Your task to perform on an android device: manage bookmarks in the chrome app Image 0: 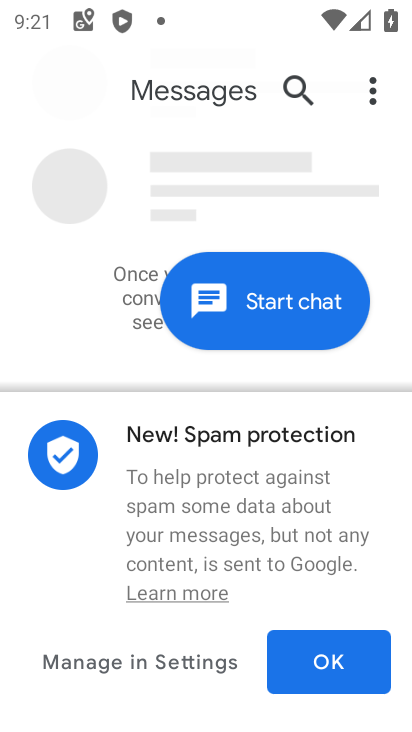
Step 0: press home button
Your task to perform on an android device: manage bookmarks in the chrome app Image 1: 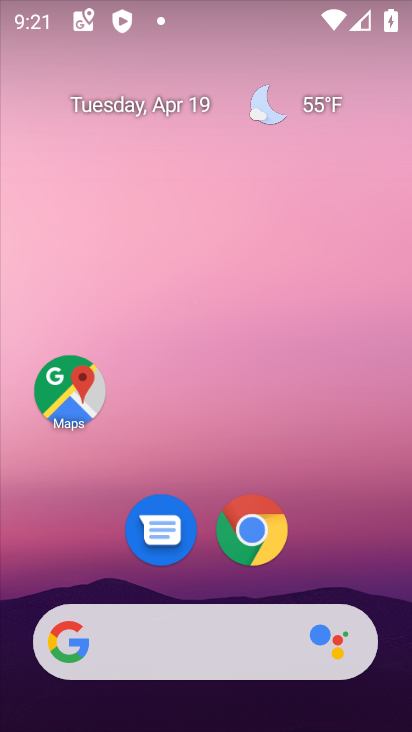
Step 1: click (253, 526)
Your task to perform on an android device: manage bookmarks in the chrome app Image 2: 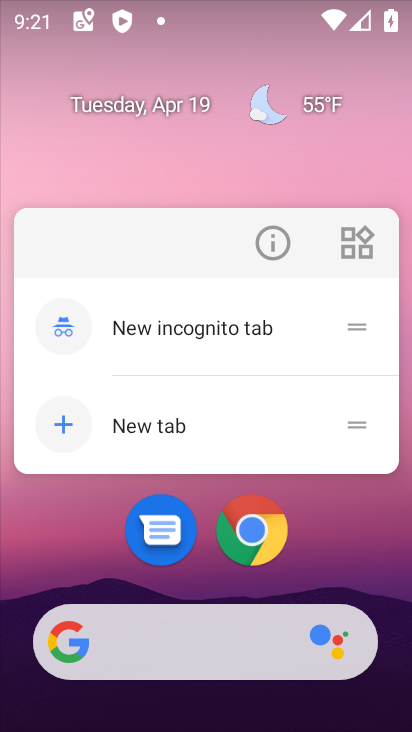
Step 2: click (253, 526)
Your task to perform on an android device: manage bookmarks in the chrome app Image 3: 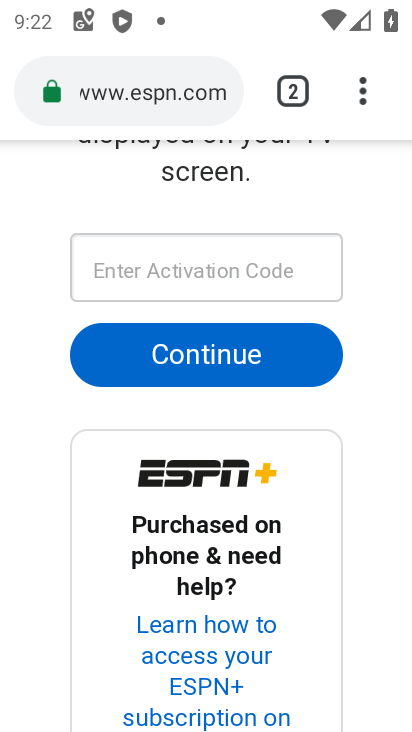
Step 3: click (363, 83)
Your task to perform on an android device: manage bookmarks in the chrome app Image 4: 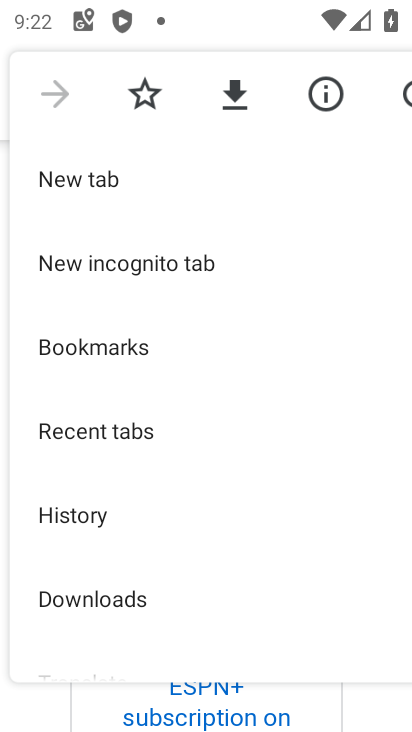
Step 4: click (149, 350)
Your task to perform on an android device: manage bookmarks in the chrome app Image 5: 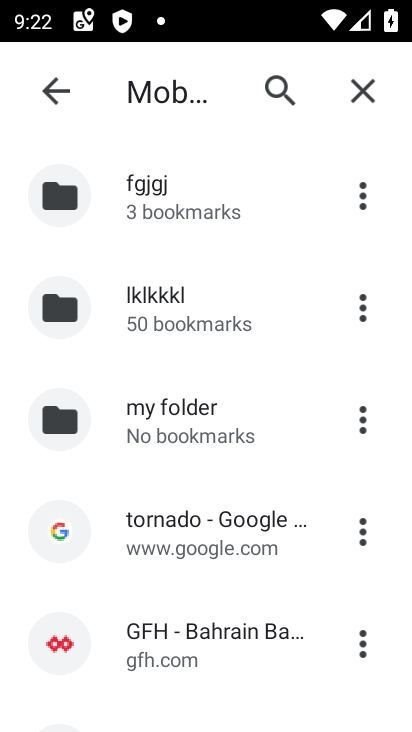
Step 5: click (359, 314)
Your task to perform on an android device: manage bookmarks in the chrome app Image 6: 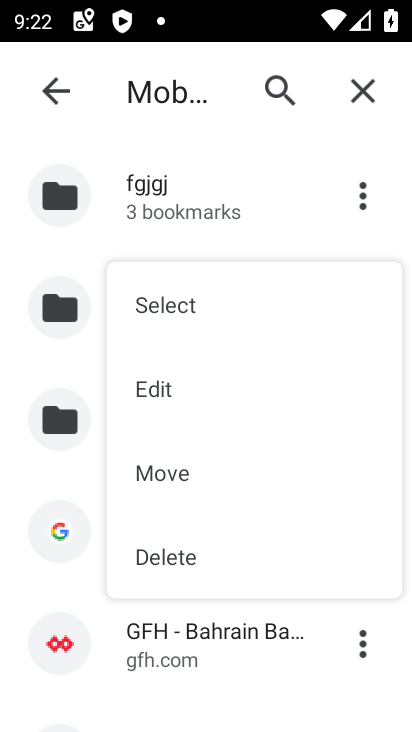
Step 6: click (201, 570)
Your task to perform on an android device: manage bookmarks in the chrome app Image 7: 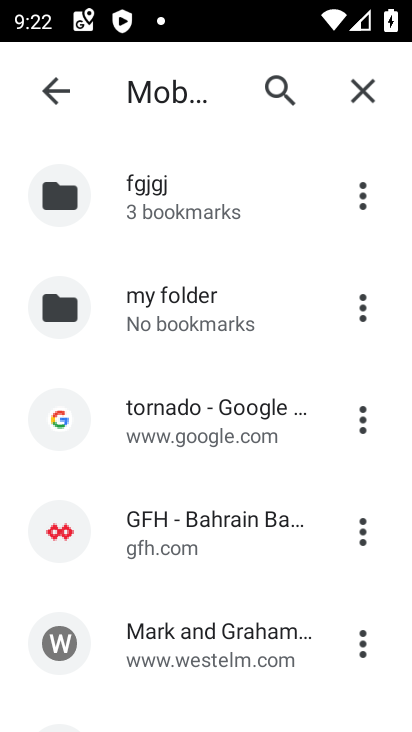
Step 7: task complete